Your task to perform on an android device: Open settings on Google Maps Image 0: 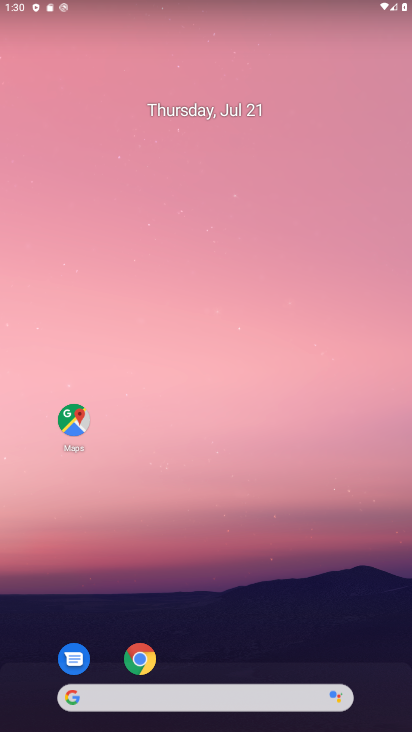
Step 0: click (67, 429)
Your task to perform on an android device: Open settings on Google Maps Image 1: 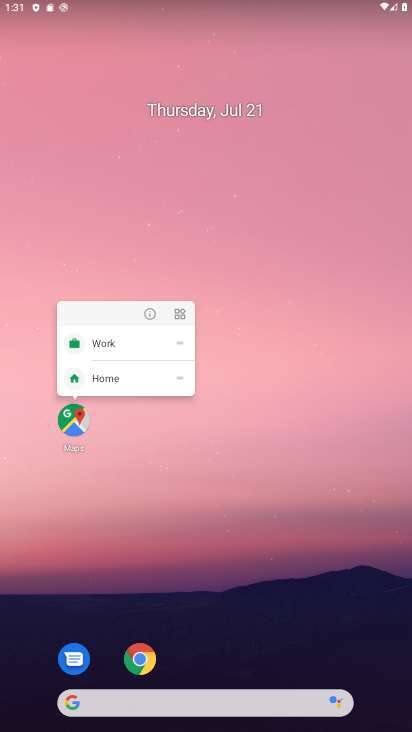
Step 1: click (65, 431)
Your task to perform on an android device: Open settings on Google Maps Image 2: 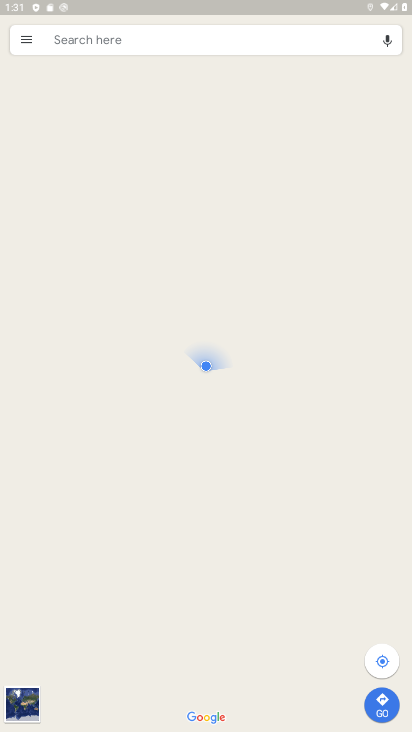
Step 2: click (27, 42)
Your task to perform on an android device: Open settings on Google Maps Image 3: 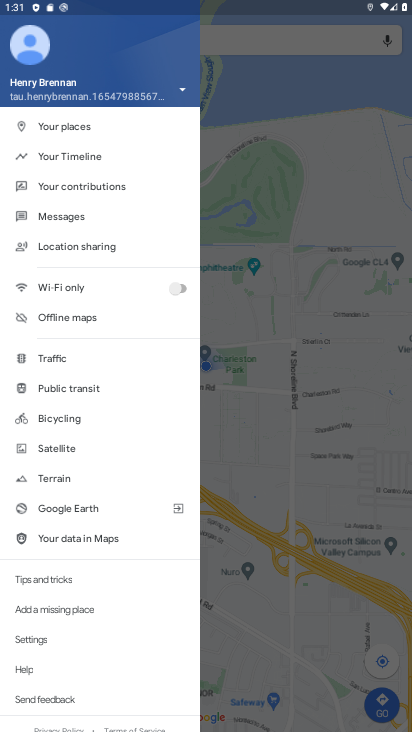
Step 3: click (36, 637)
Your task to perform on an android device: Open settings on Google Maps Image 4: 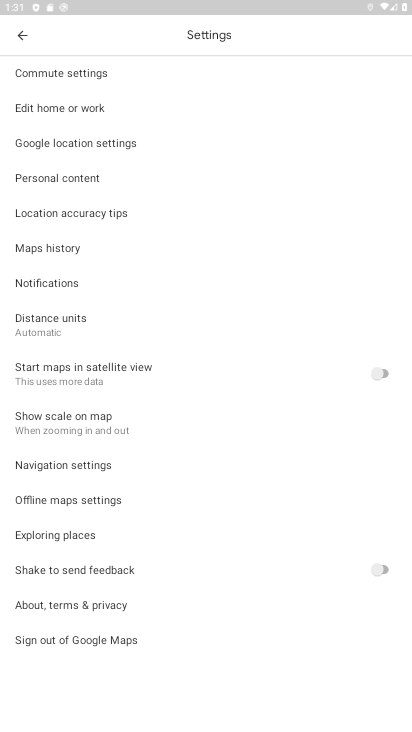
Step 4: task complete